Your task to perform on an android device: Search for vegetarian restaurants on Maps Image 0: 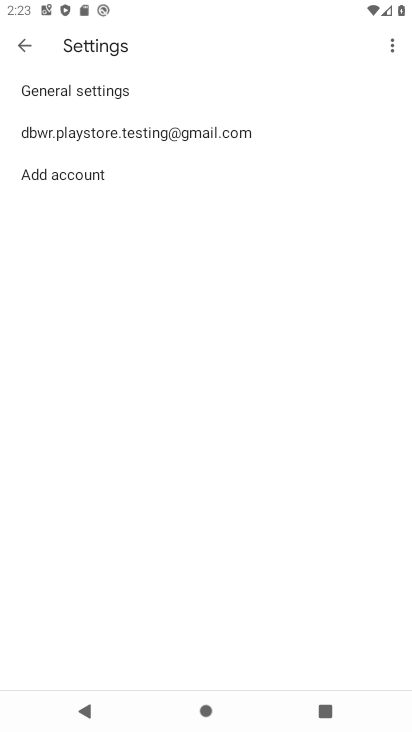
Step 0: press home button
Your task to perform on an android device: Search for vegetarian restaurants on Maps Image 1: 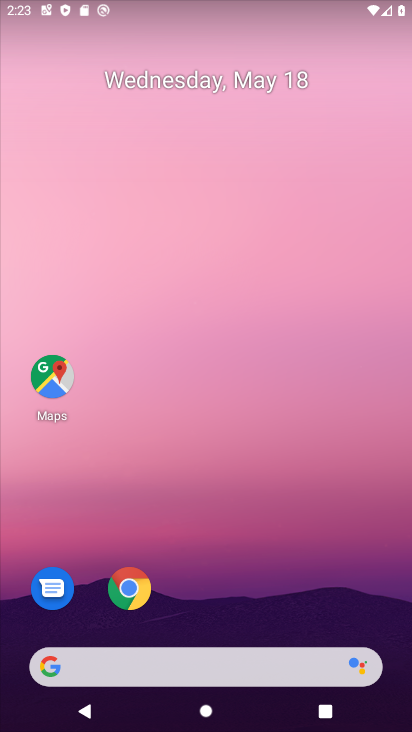
Step 1: drag from (329, 566) to (322, 197)
Your task to perform on an android device: Search for vegetarian restaurants on Maps Image 2: 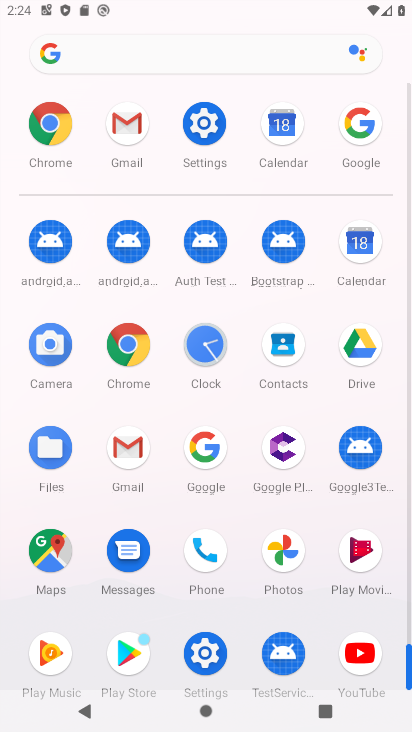
Step 2: click (39, 573)
Your task to perform on an android device: Search for vegetarian restaurants on Maps Image 3: 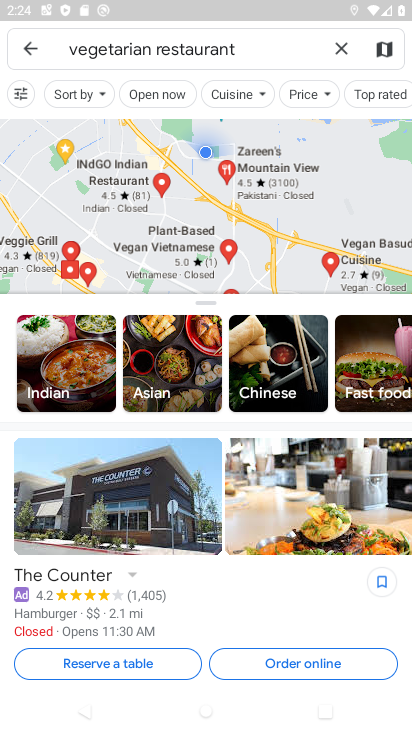
Step 3: task complete